Your task to perform on an android device: Open network settings Image 0: 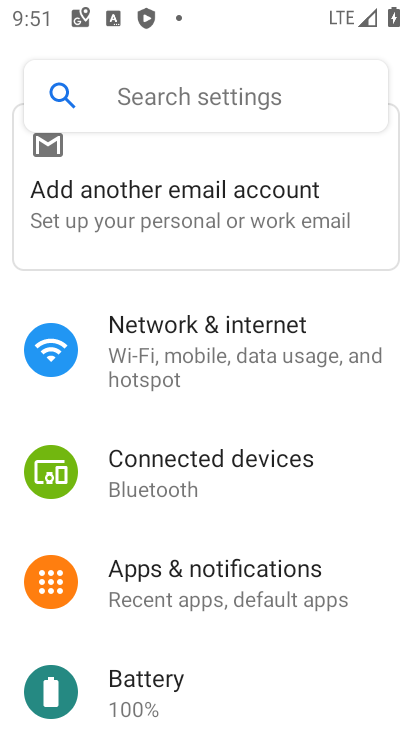
Step 0: drag from (252, 637) to (249, 508)
Your task to perform on an android device: Open network settings Image 1: 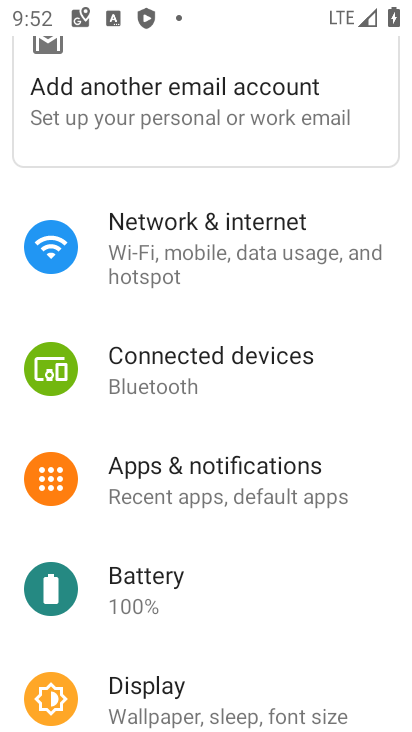
Step 1: click (194, 214)
Your task to perform on an android device: Open network settings Image 2: 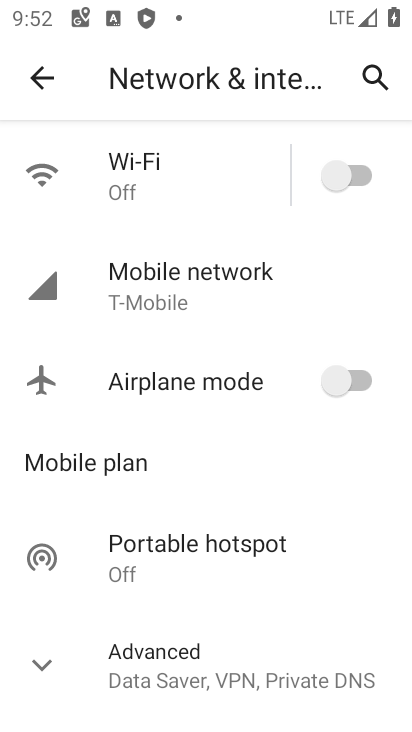
Step 2: task complete